Your task to perform on an android device: read, delete, or share a saved page in the chrome app Image 0: 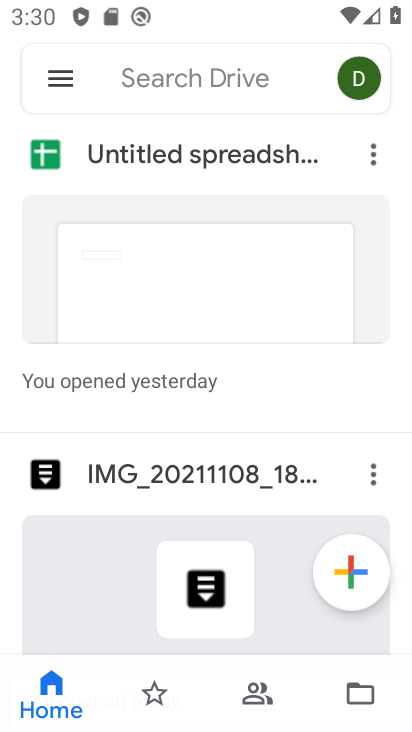
Step 0: press home button
Your task to perform on an android device: read, delete, or share a saved page in the chrome app Image 1: 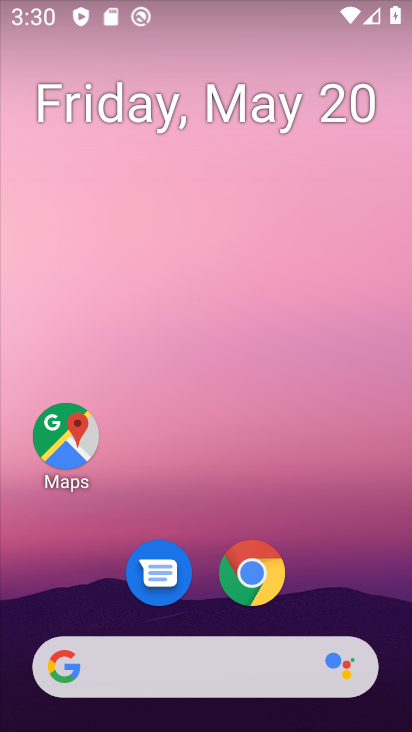
Step 1: click (252, 576)
Your task to perform on an android device: read, delete, or share a saved page in the chrome app Image 2: 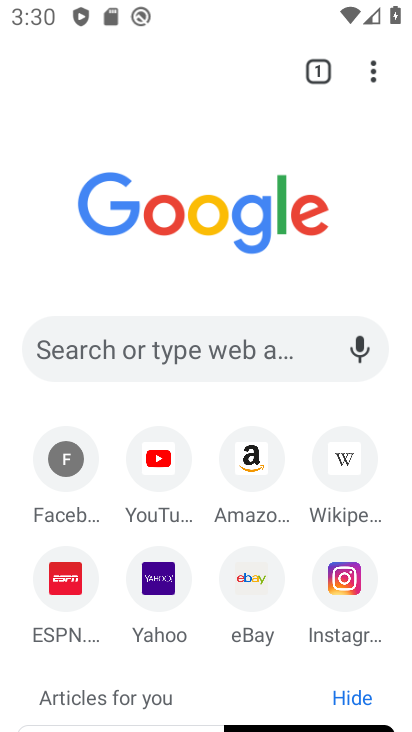
Step 2: click (375, 73)
Your task to perform on an android device: read, delete, or share a saved page in the chrome app Image 3: 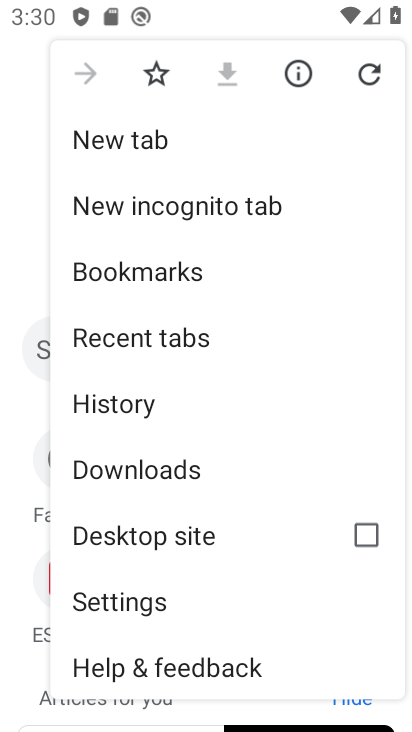
Step 3: click (137, 473)
Your task to perform on an android device: read, delete, or share a saved page in the chrome app Image 4: 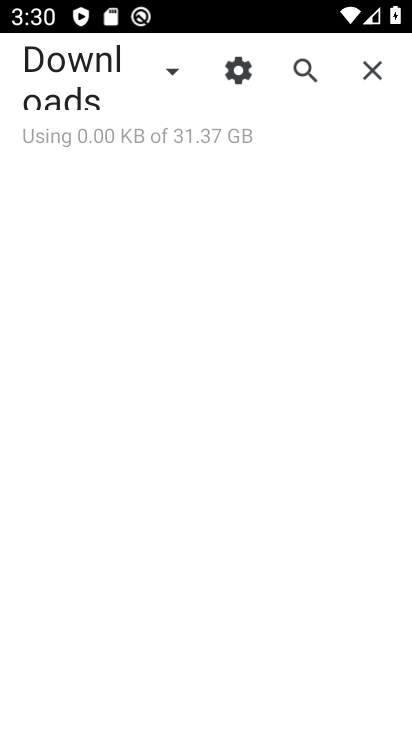
Step 4: click (174, 71)
Your task to perform on an android device: read, delete, or share a saved page in the chrome app Image 5: 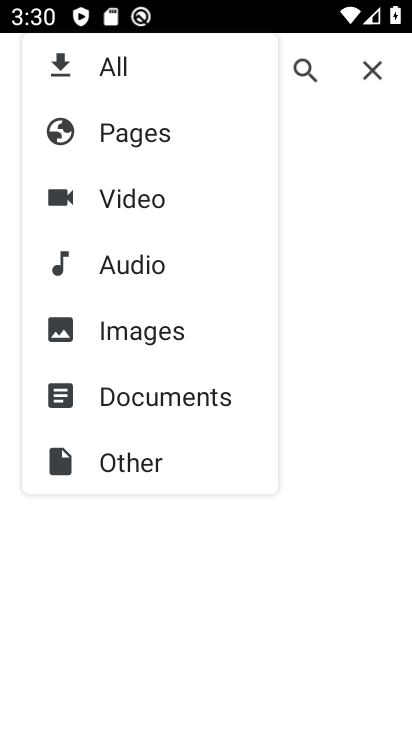
Step 5: click (121, 132)
Your task to perform on an android device: read, delete, or share a saved page in the chrome app Image 6: 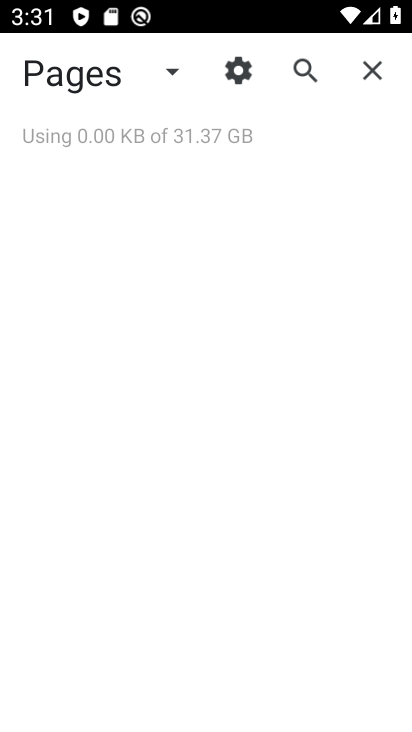
Step 6: task complete